Your task to perform on an android device: delete location history Image 0: 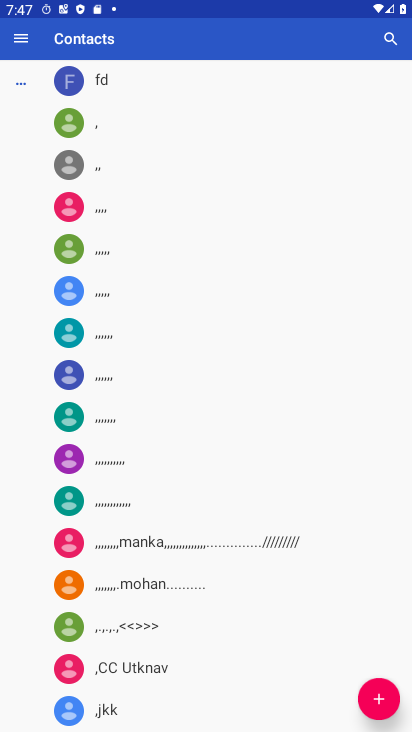
Step 0: press home button
Your task to perform on an android device: delete location history Image 1: 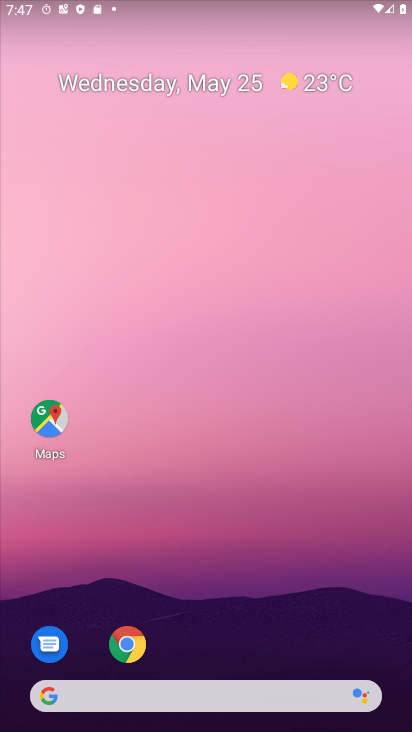
Step 1: drag from (166, 727) to (213, 70)
Your task to perform on an android device: delete location history Image 2: 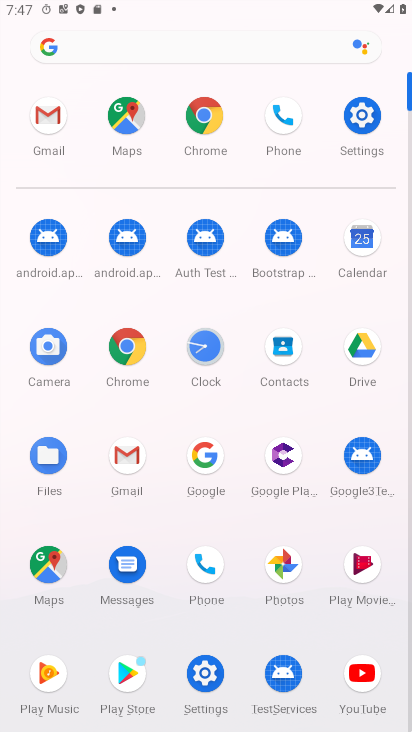
Step 2: click (354, 130)
Your task to perform on an android device: delete location history Image 3: 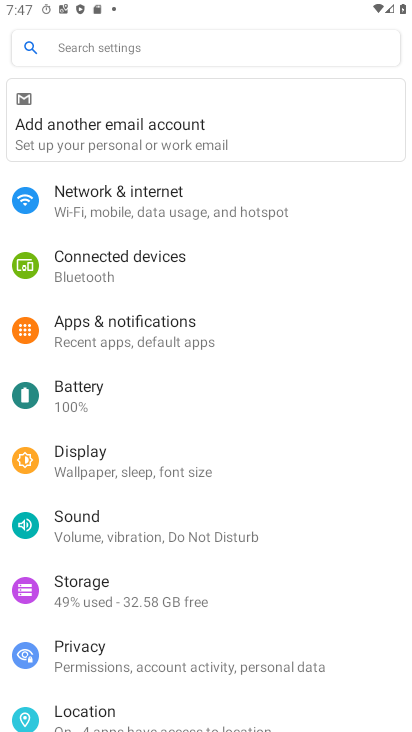
Step 3: click (152, 54)
Your task to perform on an android device: delete location history Image 4: 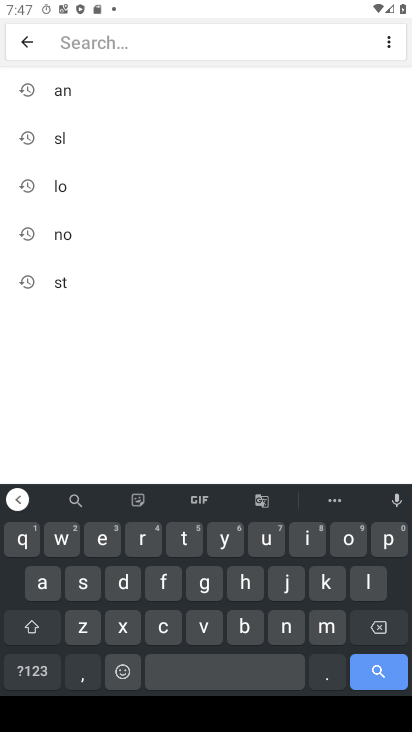
Step 4: click (76, 183)
Your task to perform on an android device: delete location history Image 5: 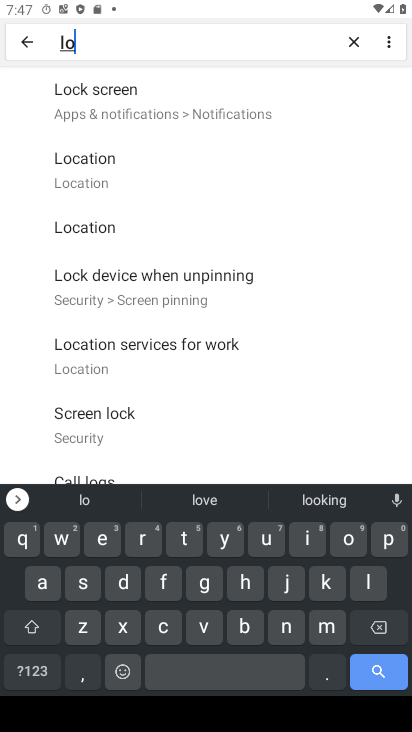
Step 5: click (76, 182)
Your task to perform on an android device: delete location history Image 6: 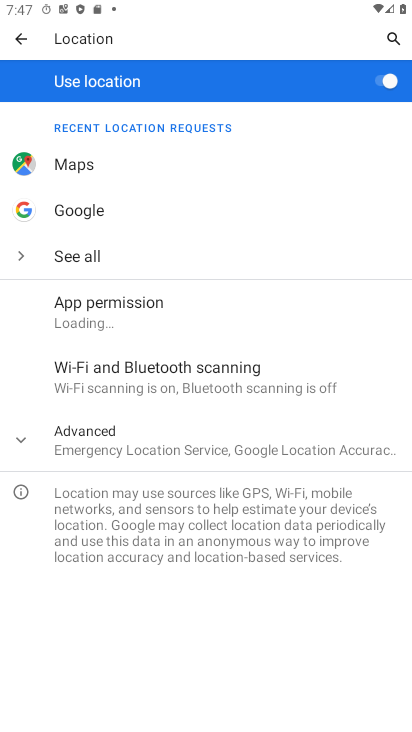
Step 6: click (36, 434)
Your task to perform on an android device: delete location history Image 7: 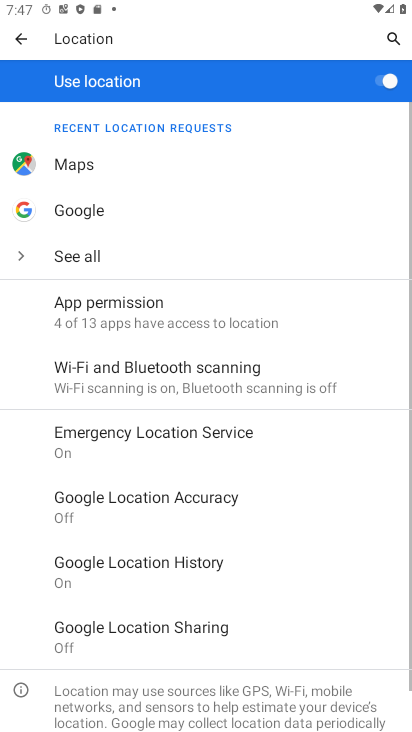
Step 7: click (234, 556)
Your task to perform on an android device: delete location history Image 8: 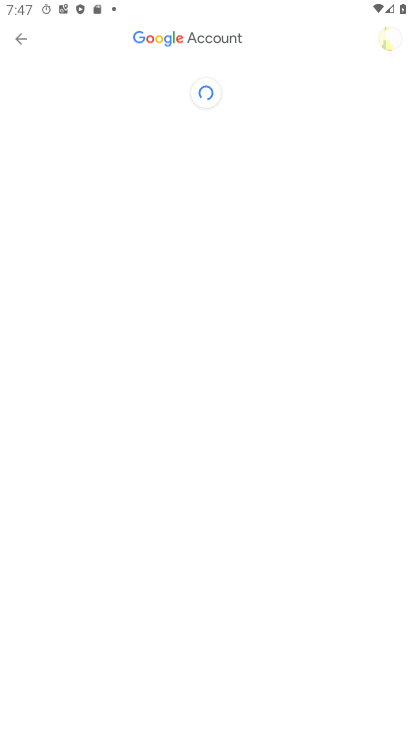
Step 8: task complete